Your task to perform on an android device: Open Wikipedia Image 0: 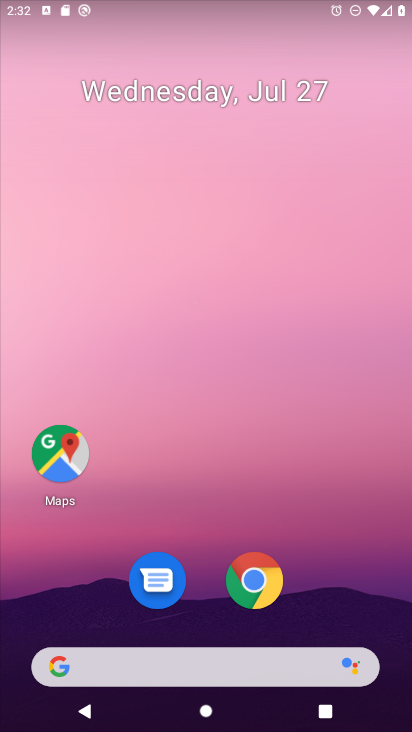
Step 0: click (255, 555)
Your task to perform on an android device: Open Wikipedia Image 1: 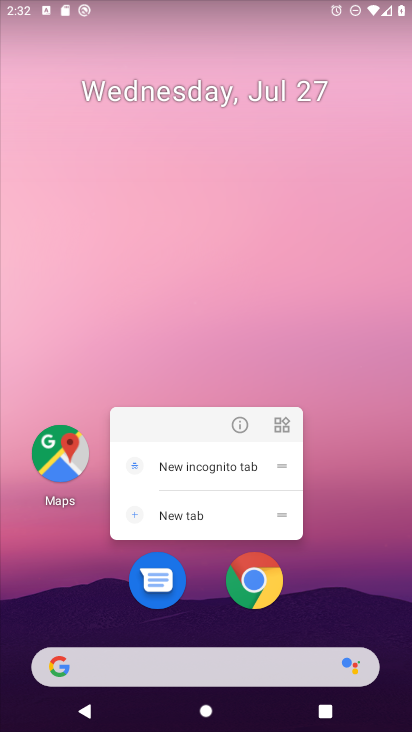
Step 1: click (262, 576)
Your task to perform on an android device: Open Wikipedia Image 2: 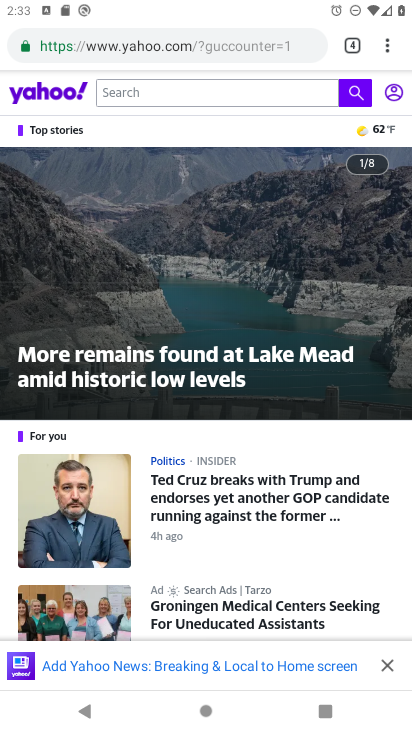
Step 2: click (350, 51)
Your task to perform on an android device: Open Wikipedia Image 3: 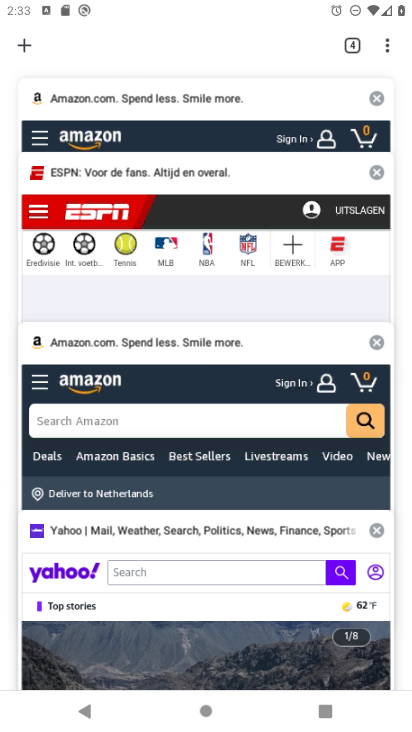
Step 3: click (22, 52)
Your task to perform on an android device: Open Wikipedia Image 4: 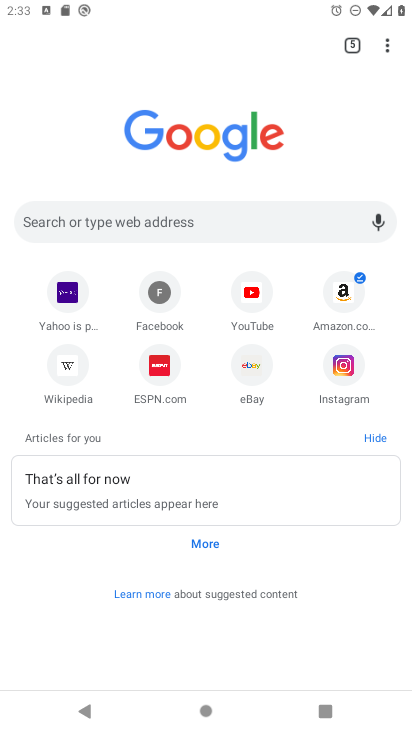
Step 4: click (76, 360)
Your task to perform on an android device: Open Wikipedia Image 5: 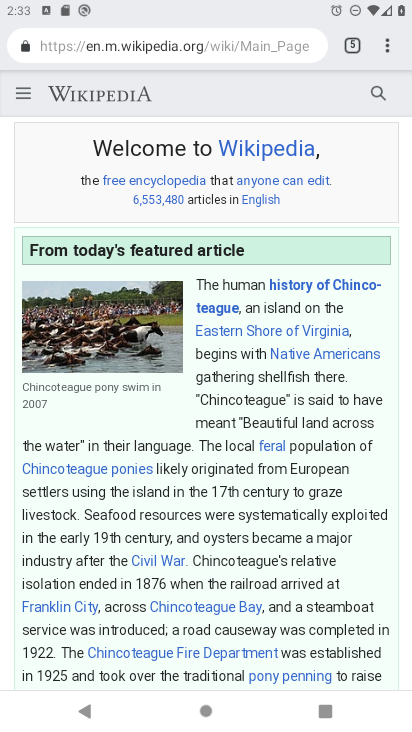
Step 5: click (353, 39)
Your task to perform on an android device: Open Wikipedia Image 6: 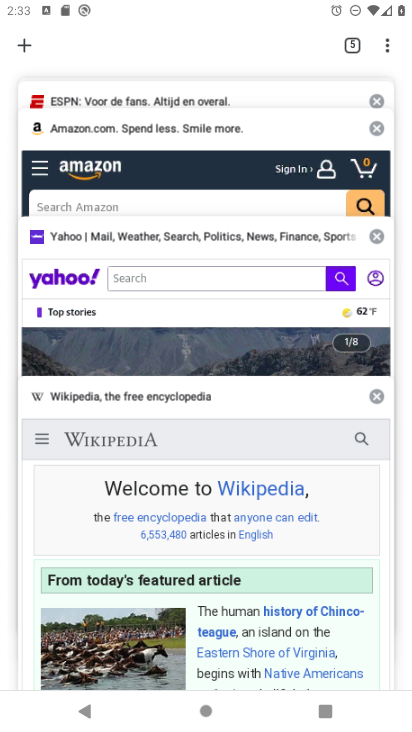
Step 6: click (20, 40)
Your task to perform on an android device: Open Wikipedia Image 7: 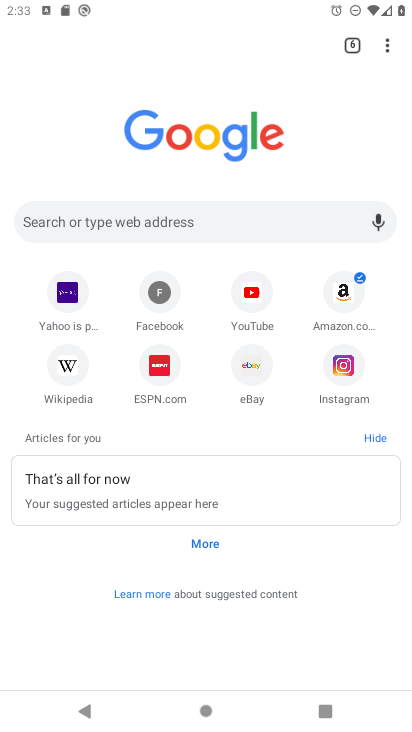
Step 7: click (63, 370)
Your task to perform on an android device: Open Wikipedia Image 8: 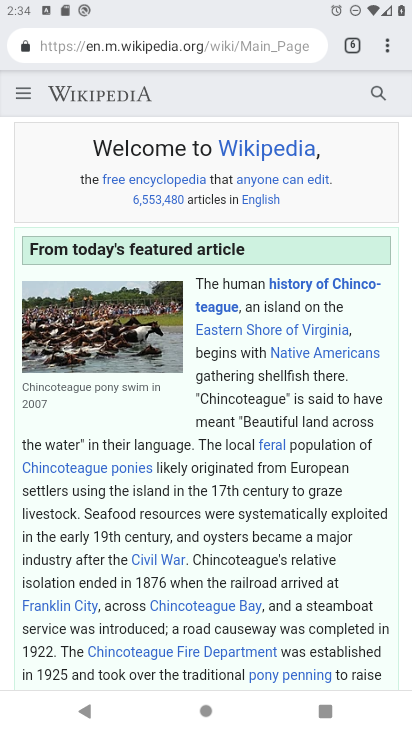
Step 8: task complete